Your task to perform on an android device: Go to ESPN.com Image 0: 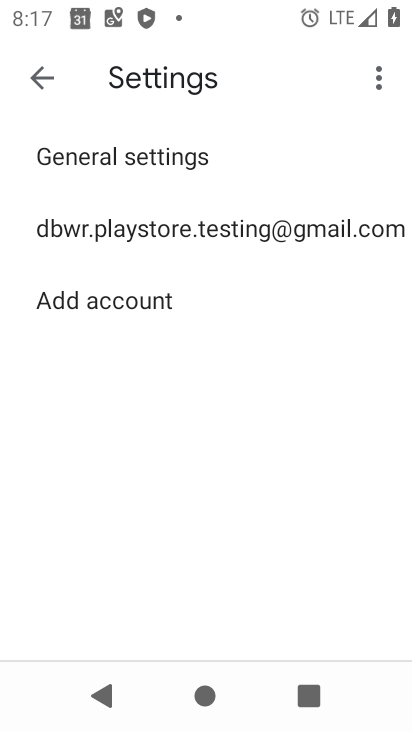
Step 0: press home button
Your task to perform on an android device: Go to ESPN.com Image 1: 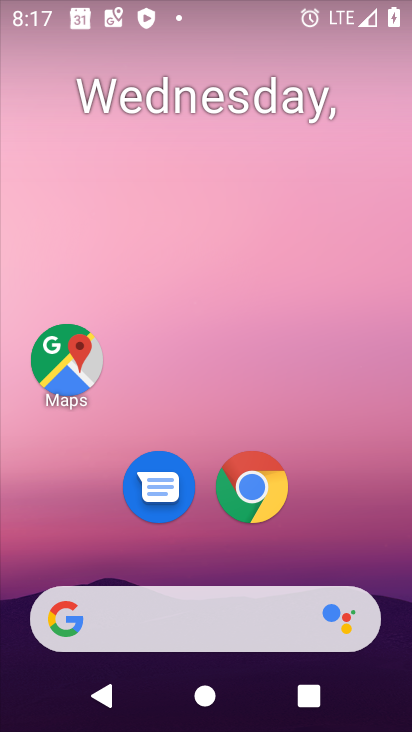
Step 1: click (253, 489)
Your task to perform on an android device: Go to ESPN.com Image 2: 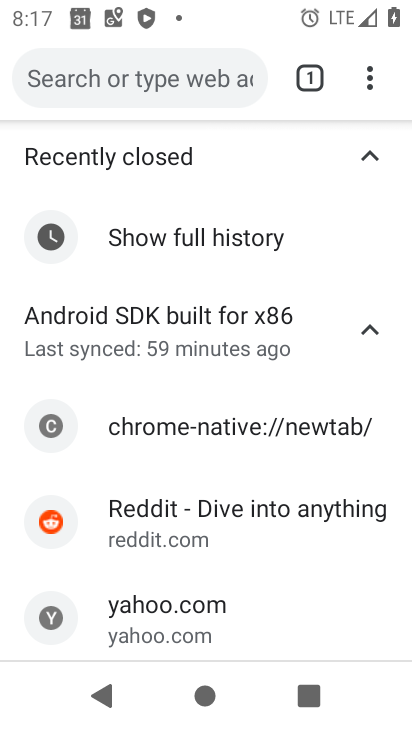
Step 2: click (72, 80)
Your task to perform on an android device: Go to ESPN.com Image 3: 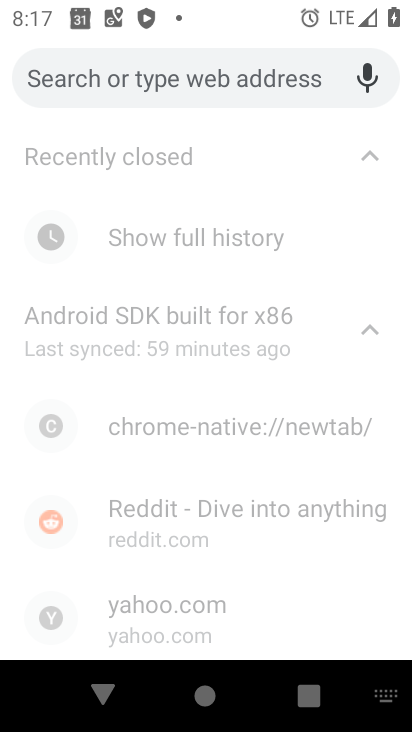
Step 3: type "espn.com"
Your task to perform on an android device: Go to ESPN.com Image 4: 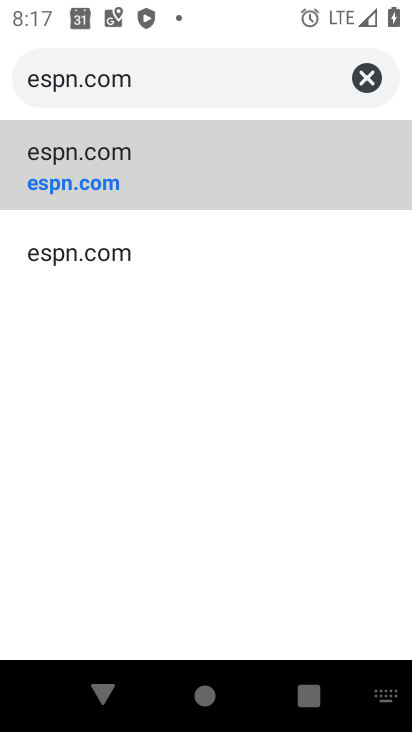
Step 4: click (75, 144)
Your task to perform on an android device: Go to ESPN.com Image 5: 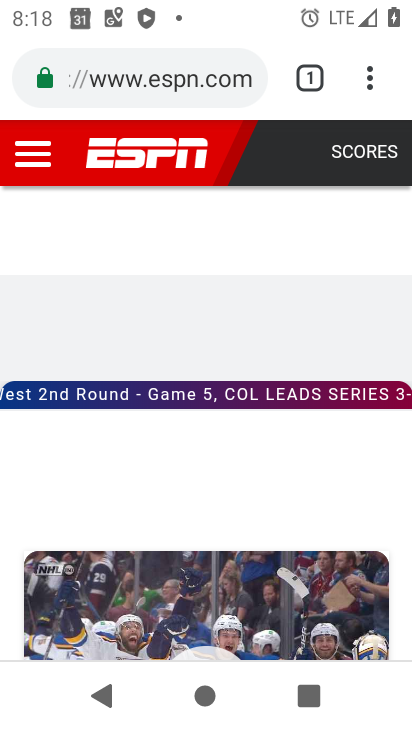
Step 5: task complete